Your task to perform on an android device: set default search engine in the chrome app Image 0: 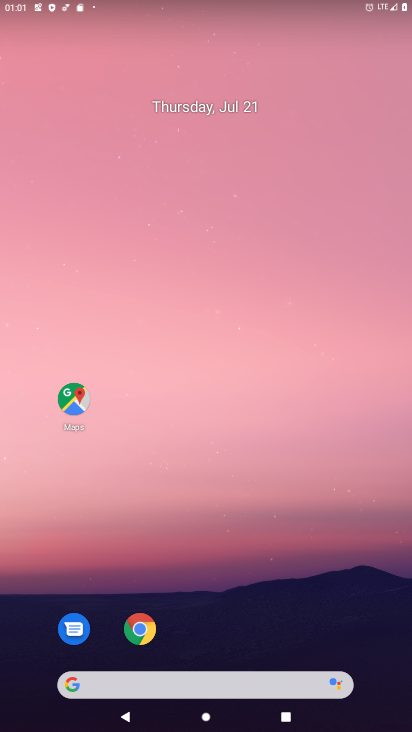
Step 0: click (166, 143)
Your task to perform on an android device: set default search engine in the chrome app Image 1: 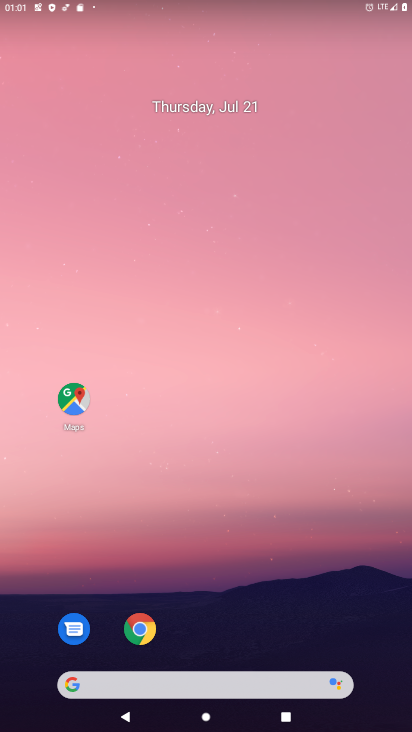
Step 1: drag from (357, 604) to (175, 32)
Your task to perform on an android device: set default search engine in the chrome app Image 2: 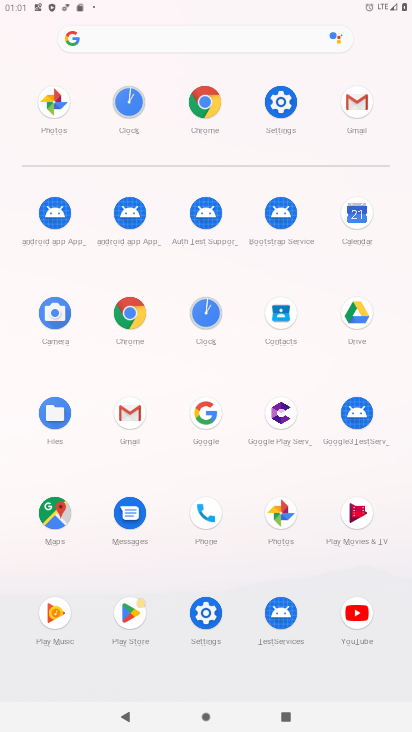
Step 2: click (131, 310)
Your task to perform on an android device: set default search engine in the chrome app Image 3: 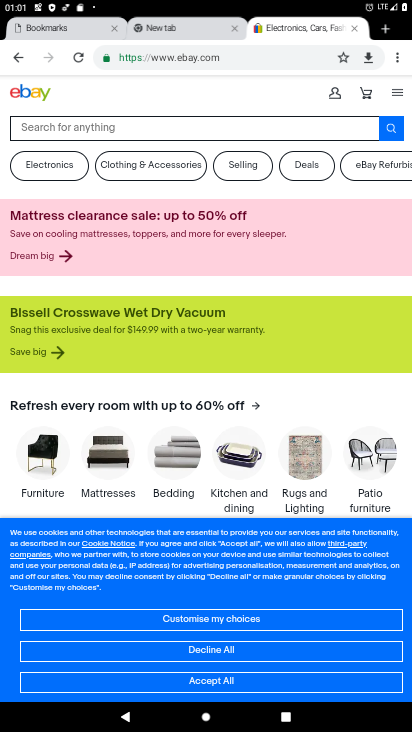
Step 3: drag from (397, 53) to (285, 419)
Your task to perform on an android device: set default search engine in the chrome app Image 4: 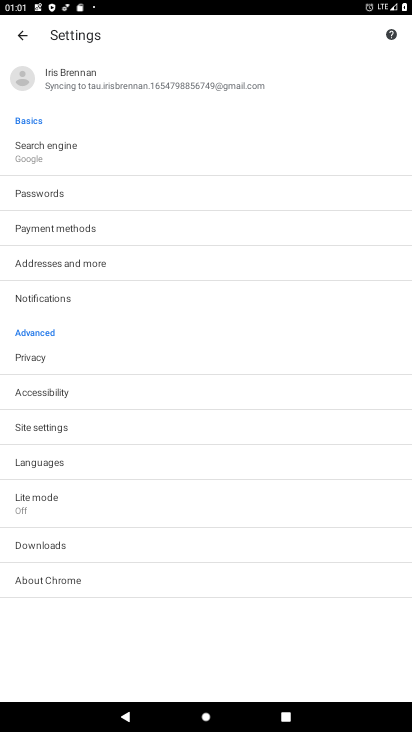
Step 4: click (65, 139)
Your task to perform on an android device: set default search engine in the chrome app Image 5: 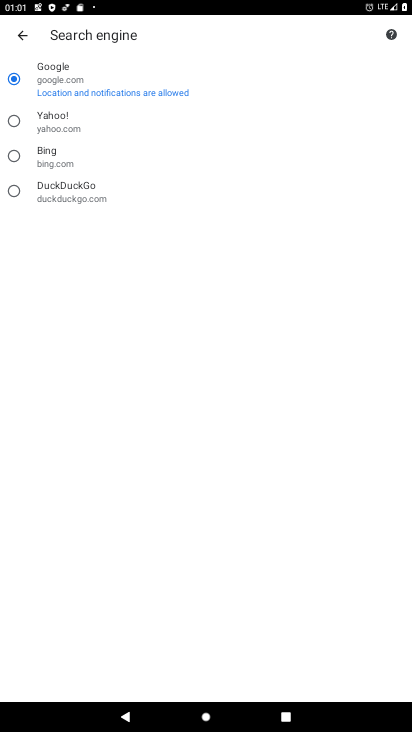
Step 5: task complete